Your task to perform on an android device: Show me the alarms in the clock app Image 0: 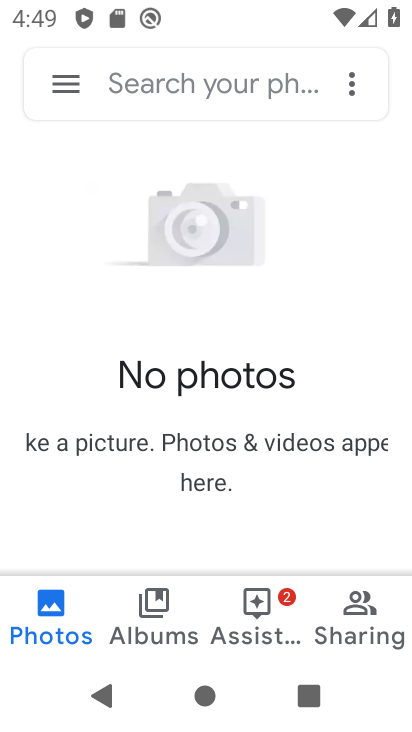
Step 0: press home button
Your task to perform on an android device: Show me the alarms in the clock app Image 1: 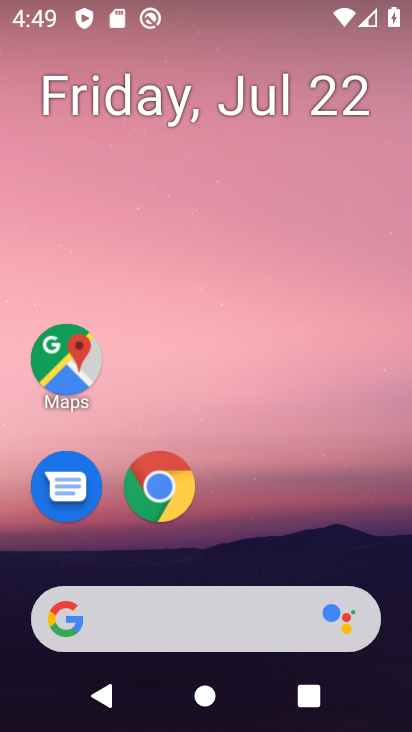
Step 1: drag from (395, 599) to (342, 108)
Your task to perform on an android device: Show me the alarms in the clock app Image 2: 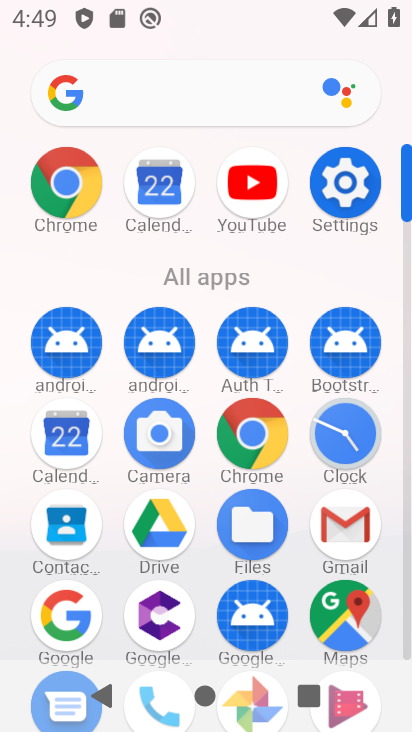
Step 2: click (349, 409)
Your task to perform on an android device: Show me the alarms in the clock app Image 3: 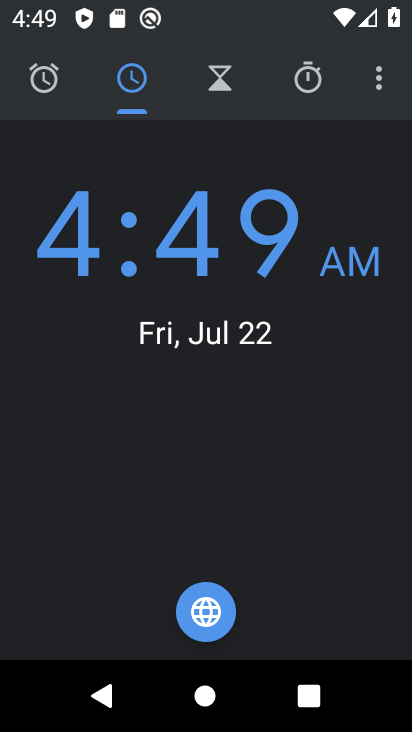
Step 3: click (69, 106)
Your task to perform on an android device: Show me the alarms in the clock app Image 4: 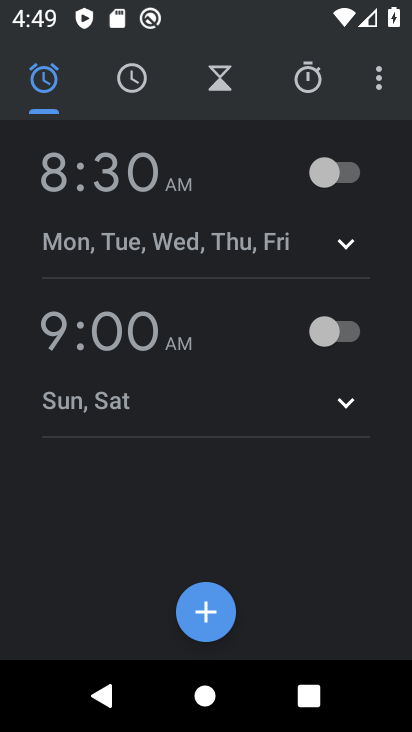
Step 4: task complete